Your task to perform on an android device: Search for "razer huntsman" on bestbuy.com, select the first entry, and add it to the cart. Image 0: 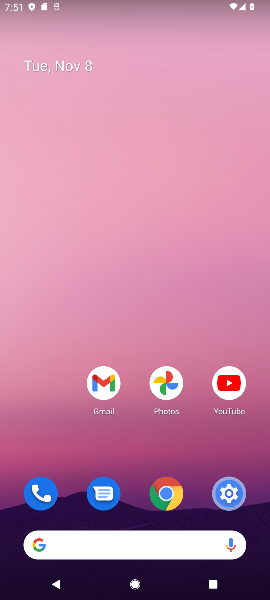
Step 0: click (165, 501)
Your task to perform on an android device: Search for "razer huntsman" on bestbuy.com, select the first entry, and add it to the cart. Image 1: 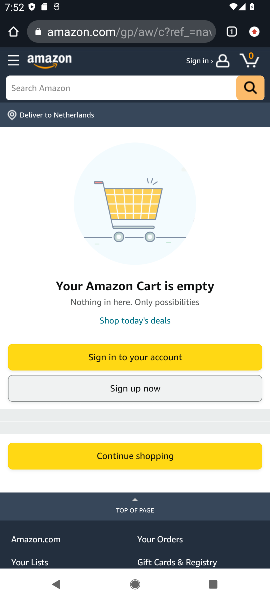
Step 1: click (115, 30)
Your task to perform on an android device: Search for "razer huntsman" on bestbuy.com, select the first entry, and add it to the cart. Image 2: 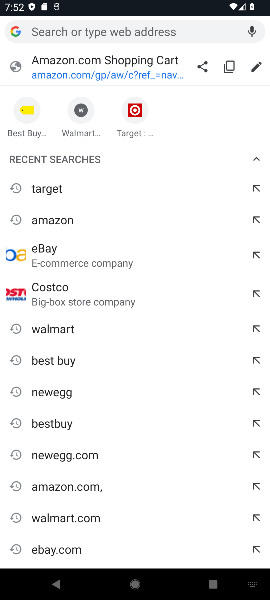
Step 2: type "bestbuy.com"
Your task to perform on an android device: Search for "razer huntsman" on bestbuy.com, select the first entry, and add it to the cart. Image 3: 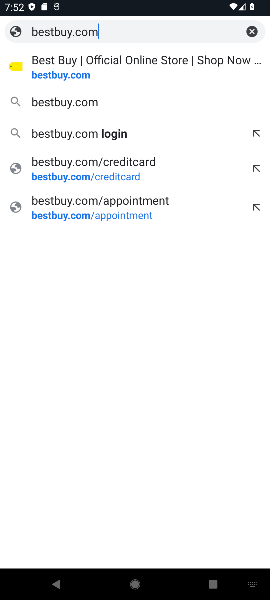
Step 3: click (54, 76)
Your task to perform on an android device: Search for "razer huntsman" on bestbuy.com, select the first entry, and add it to the cart. Image 4: 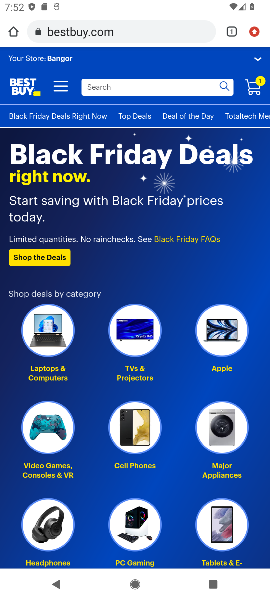
Step 4: click (118, 83)
Your task to perform on an android device: Search for "razer huntsman" on bestbuy.com, select the first entry, and add it to the cart. Image 5: 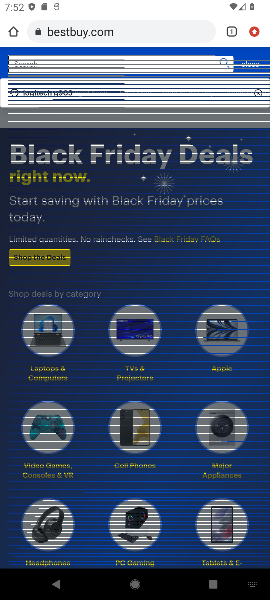
Step 5: type "razer huntsman"
Your task to perform on an android device: Search for "razer huntsman" on bestbuy.com, select the first entry, and add it to the cart. Image 6: 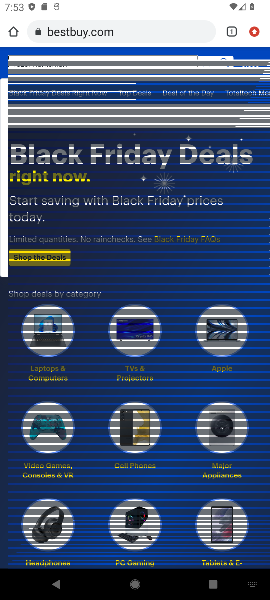
Step 6: click (37, 95)
Your task to perform on an android device: Search for "razer huntsman" on bestbuy.com, select the first entry, and add it to the cart. Image 7: 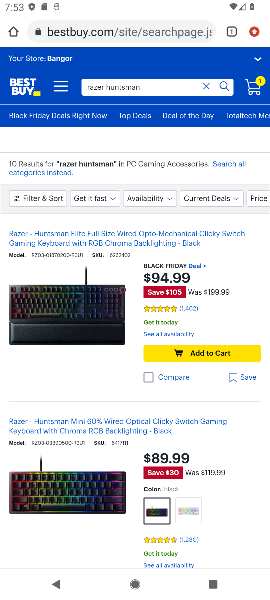
Step 7: click (79, 336)
Your task to perform on an android device: Search for "razer huntsman" on bestbuy.com, select the first entry, and add it to the cart. Image 8: 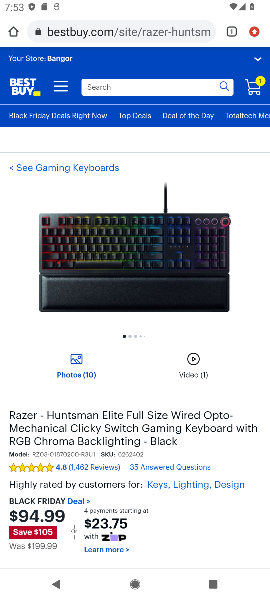
Step 8: drag from (169, 522) to (170, 252)
Your task to perform on an android device: Search for "razer huntsman" on bestbuy.com, select the first entry, and add it to the cart. Image 9: 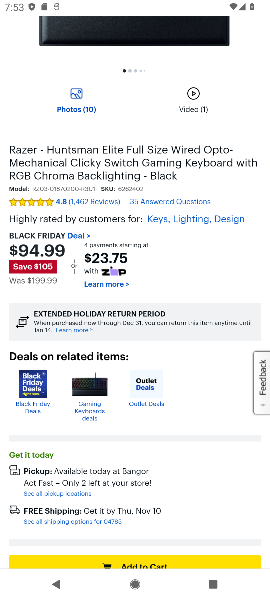
Step 9: drag from (186, 489) to (185, 305)
Your task to perform on an android device: Search for "razer huntsman" on bestbuy.com, select the first entry, and add it to the cart. Image 10: 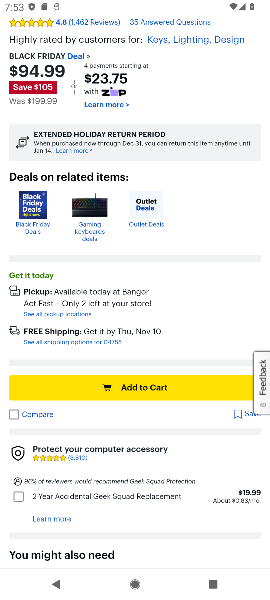
Step 10: click (134, 389)
Your task to perform on an android device: Search for "razer huntsman" on bestbuy.com, select the first entry, and add it to the cart. Image 11: 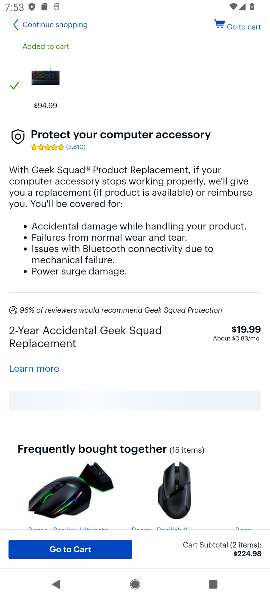
Step 11: task complete